Your task to perform on an android device: change timer sound Image 0: 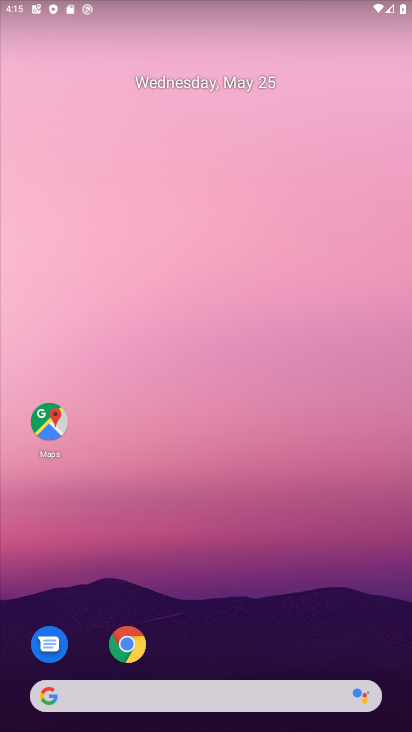
Step 0: drag from (291, 669) to (244, 1)
Your task to perform on an android device: change timer sound Image 1: 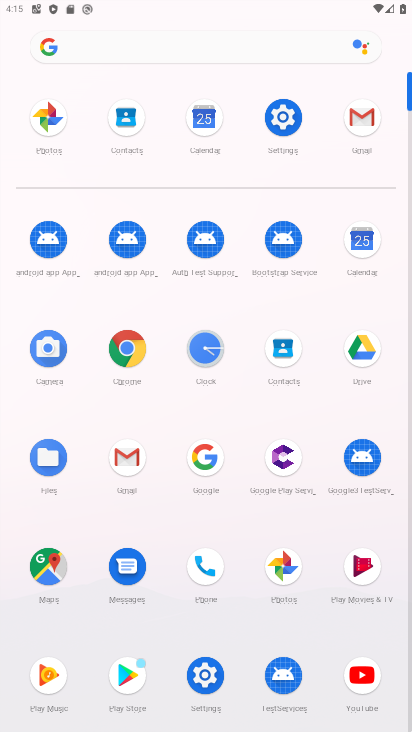
Step 1: click (200, 353)
Your task to perform on an android device: change timer sound Image 2: 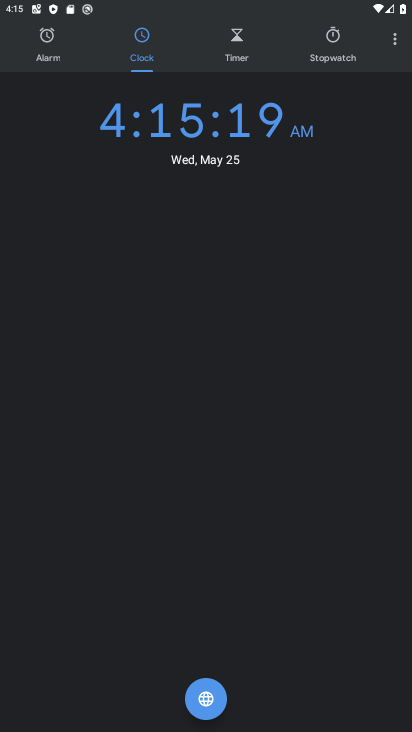
Step 2: click (397, 35)
Your task to perform on an android device: change timer sound Image 3: 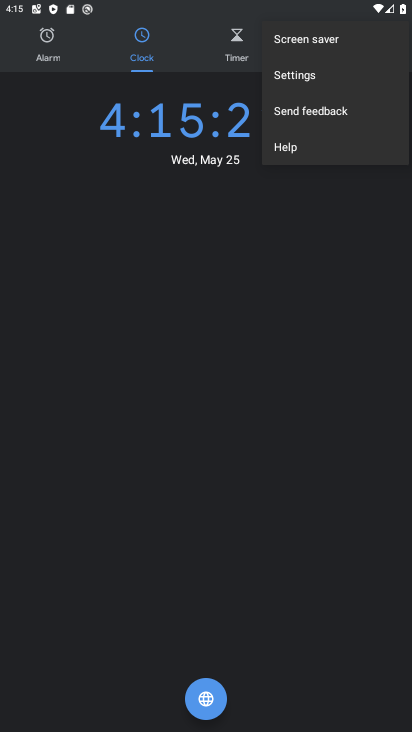
Step 3: click (309, 77)
Your task to perform on an android device: change timer sound Image 4: 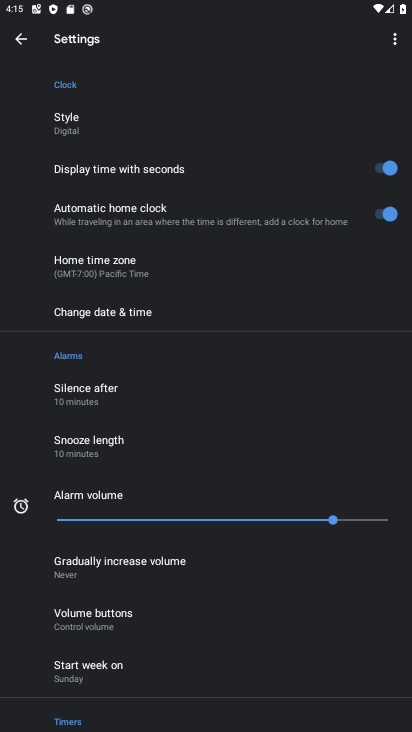
Step 4: drag from (172, 593) to (171, 349)
Your task to perform on an android device: change timer sound Image 5: 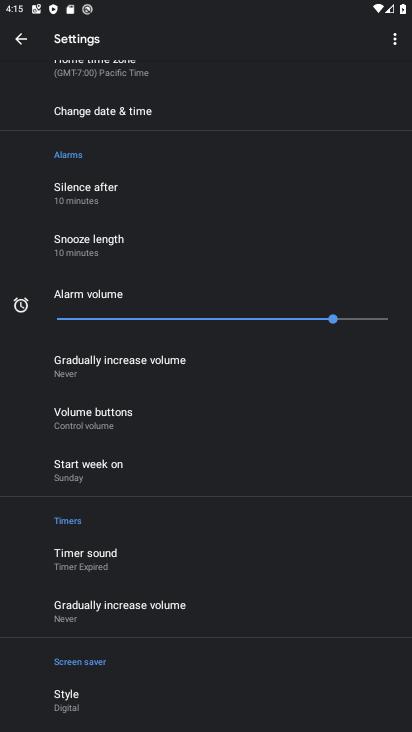
Step 5: click (93, 559)
Your task to perform on an android device: change timer sound Image 6: 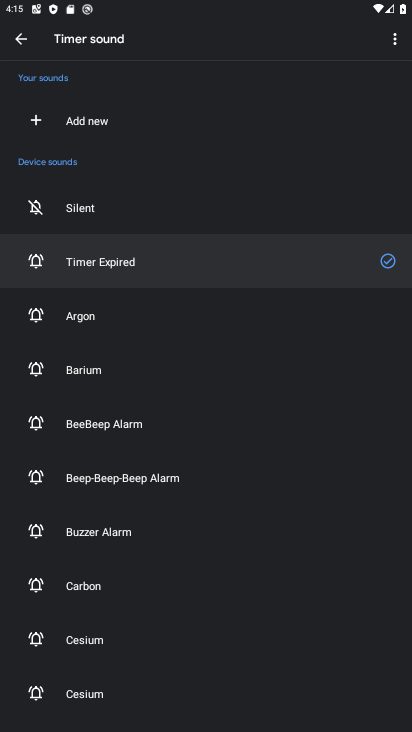
Step 6: click (74, 377)
Your task to perform on an android device: change timer sound Image 7: 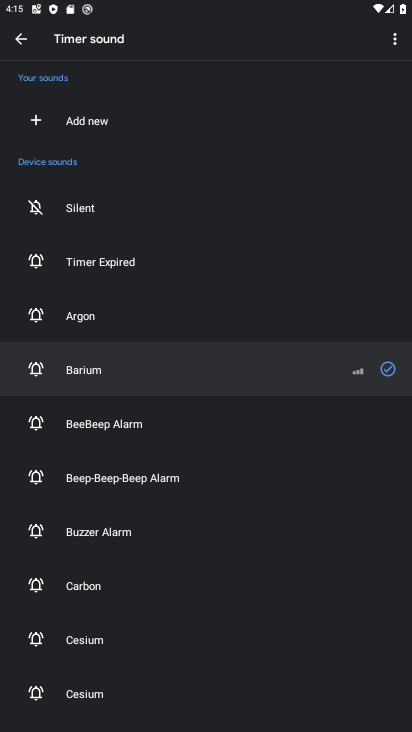
Step 7: task complete